Your task to perform on an android device: Open Wikipedia Image 0: 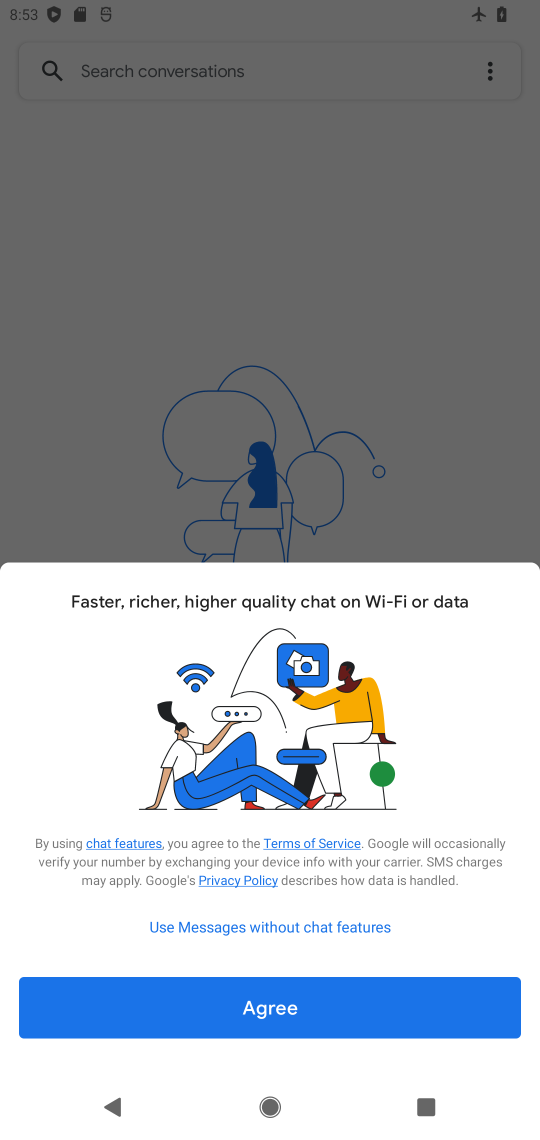
Step 0: press home button
Your task to perform on an android device: Open Wikipedia Image 1: 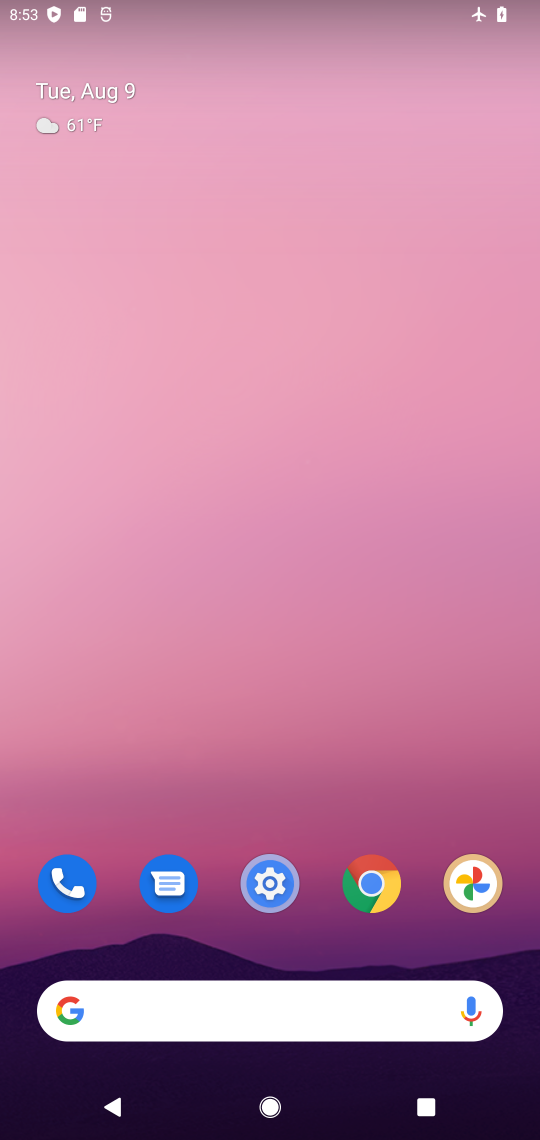
Step 1: drag from (288, 747) to (97, 20)
Your task to perform on an android device: Open Wikipedia Image 2: 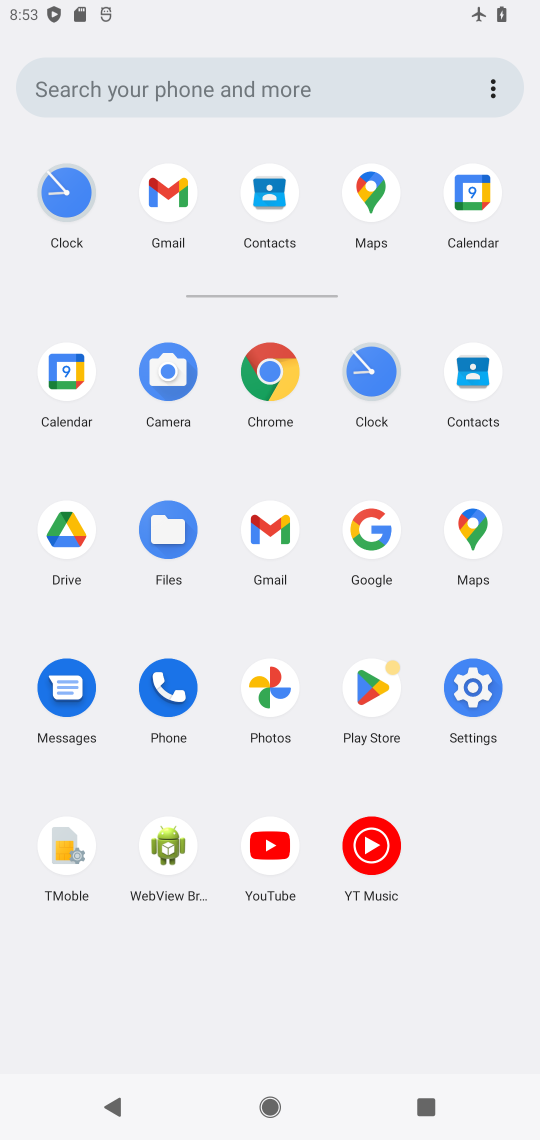
Step 2: click (278, 360)
Your task to perform on an android device: Open Wikipedia Image 3: 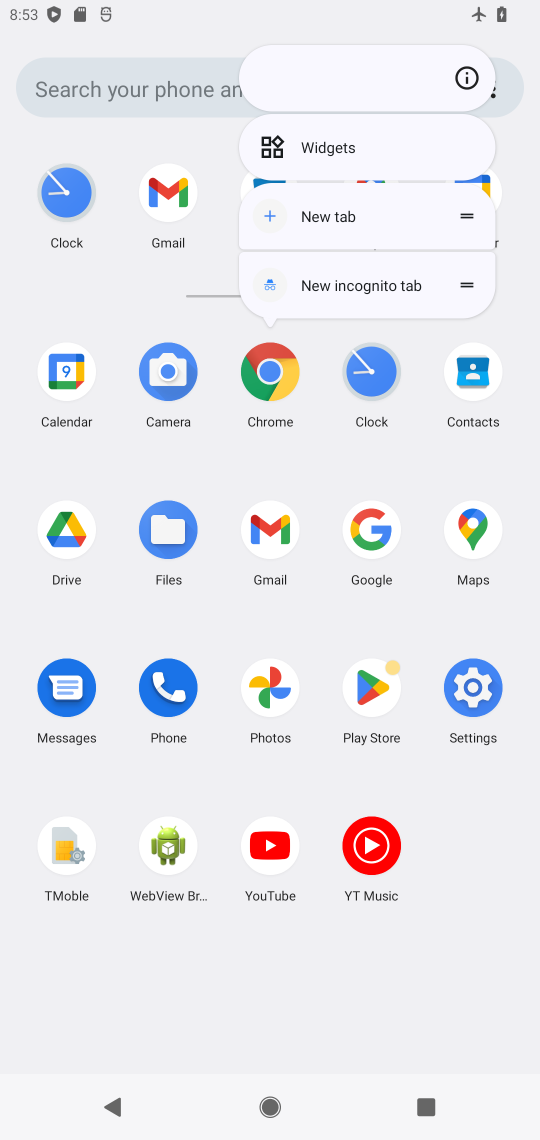
Step 3: click (274, 371)
Your task to perform on an android device: Open Wikipedia Image 4: 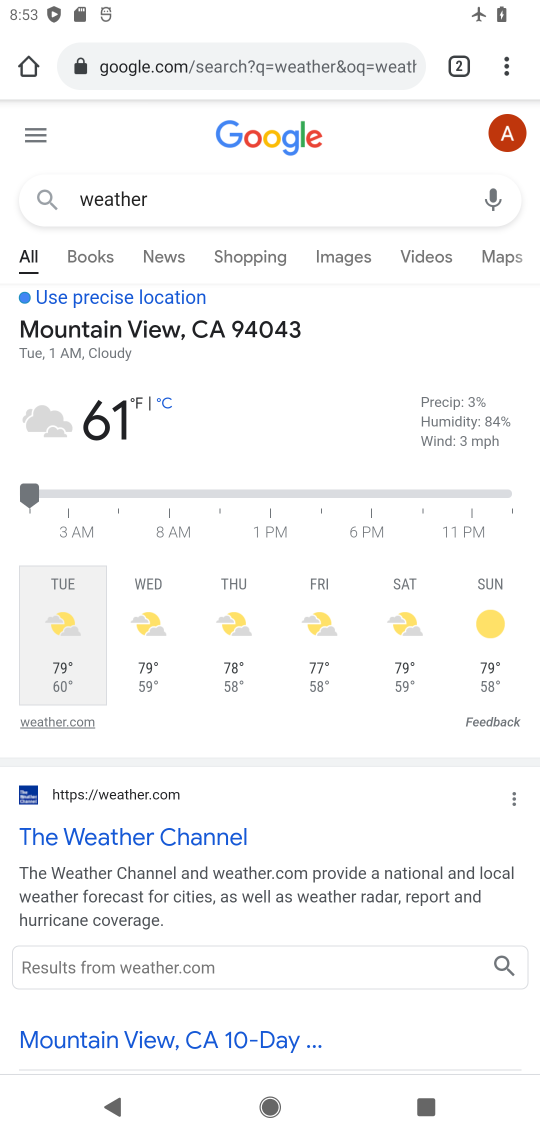
Step 4: click (307, 49)
Your task to perform on an android device: Open Wikipedia Image 5: 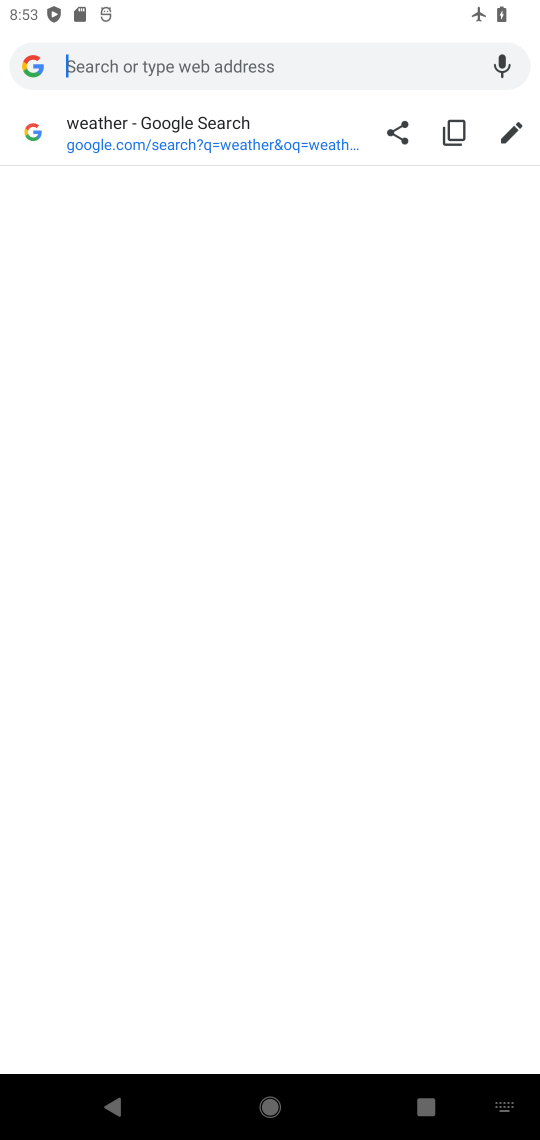
Step 5: type "wikipedia"
Your task to perform on an android device: Open Wikipedia Image 6: 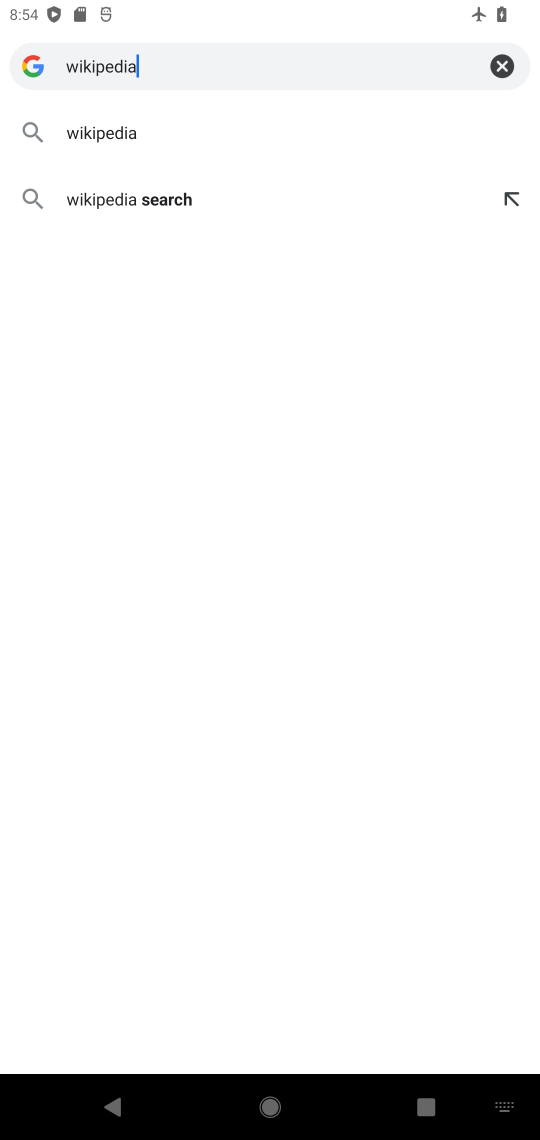
Step 6: click (407, 132)
Your task to perform on an android device: Open Wikipedia Image 7: 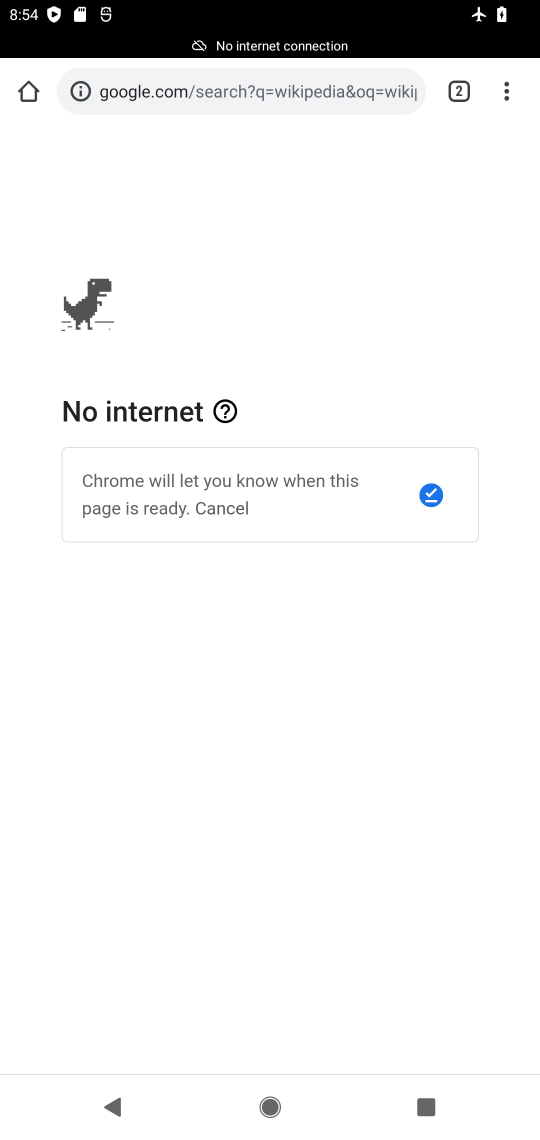
Step 7: task complete